Your task to perform on an android device: turn on improve location accuracy Image 0: 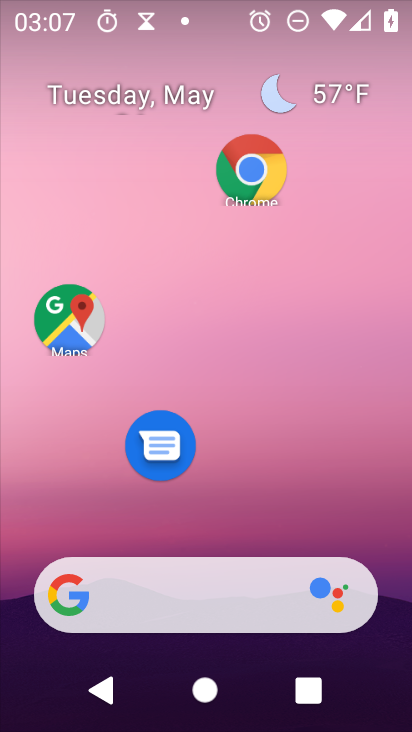
Step 0: drag from (224, 714) to (229, 49)
Your task to perform on an android device: turn on improve location accuracy Image 1: 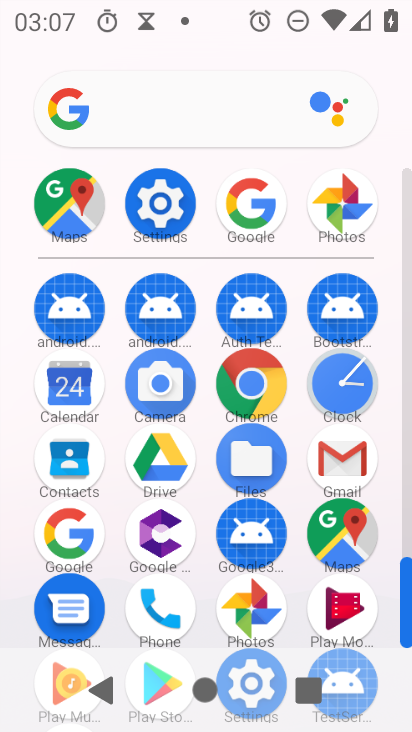
Step 1: click (155, 203)
Your task to perform on an android device: turn on improve location accuracy Image 2: 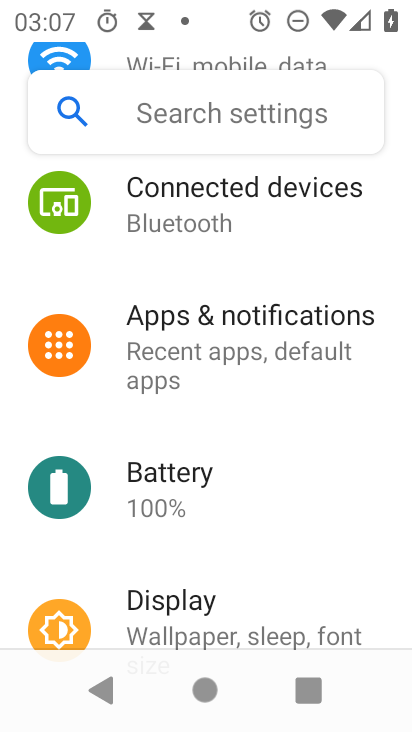
Step 2: drag from (162, 579) to (193, 150)
Your task to perform on an android device: turn on improve location accuracy Image 3: 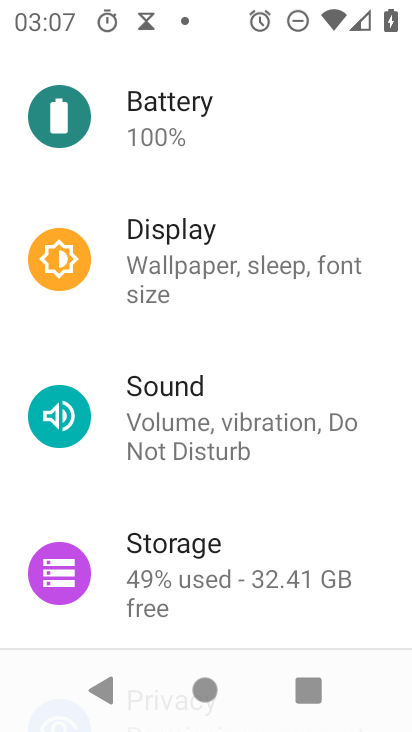
Step 3: drag from (217, 586) to (207, 216)
Your task to perform on an android device: turn on improve location accuracy Image 4: 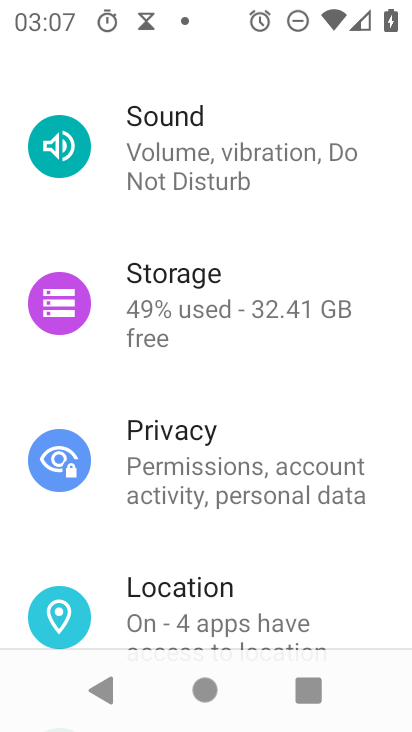
Step 4: click (179, 583)
Your task to perform on an android device: turn on improve location accuracy Image 5: 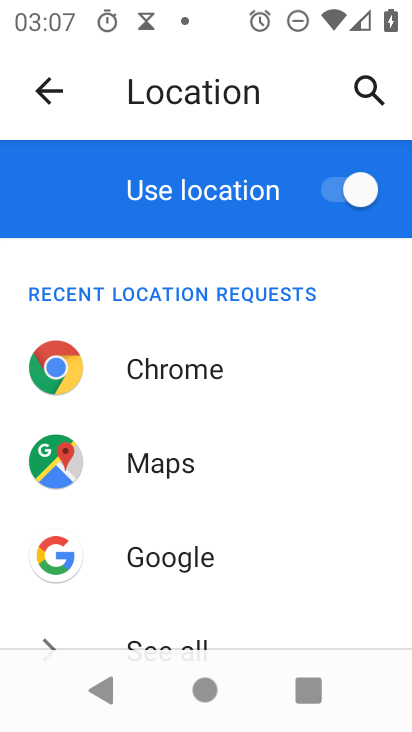
Step 5: drag from (180, 608) to (201, 177)
Your task to perform on an android device: turn on improve location accuracy Image 6: 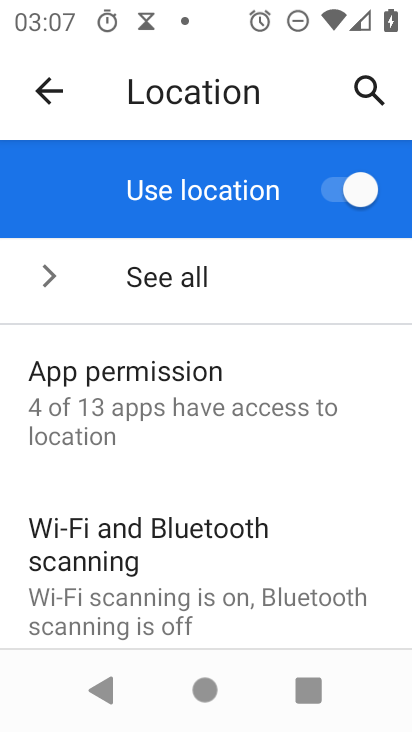
Step 6: drag from (157, 579) to (166, 235)
Your task to perform on an android device: turn on improve location accuracy Image 7: 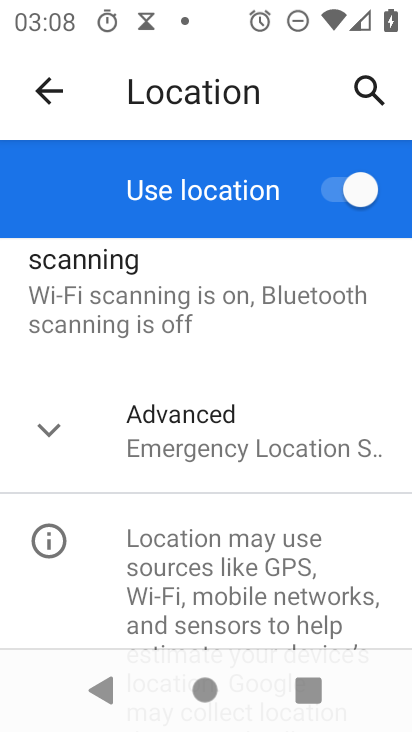
Step 7: drag from (181, 585) to (183, 332)
Your task to perform on an android device: turn on improve location accuracy Image 8: 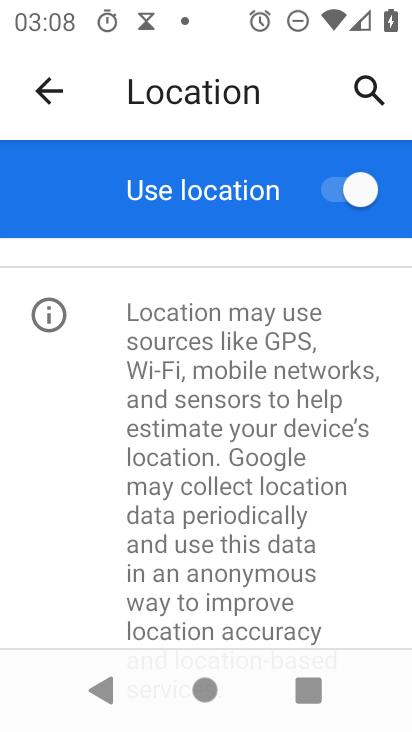
Step 8: drag from (199, 274) to (213, 474)
Your task to perform on an android device: turn on improve location accuracy Image 9: 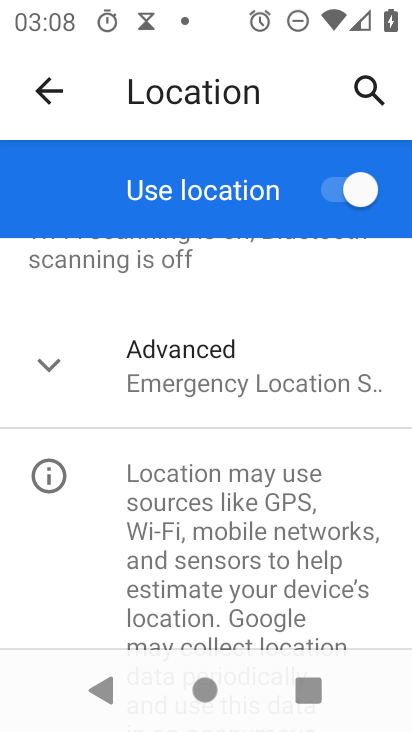
Step 9: click (190, 378)
Your task to perform on an android device: turn on improve location accuracy Image 10: 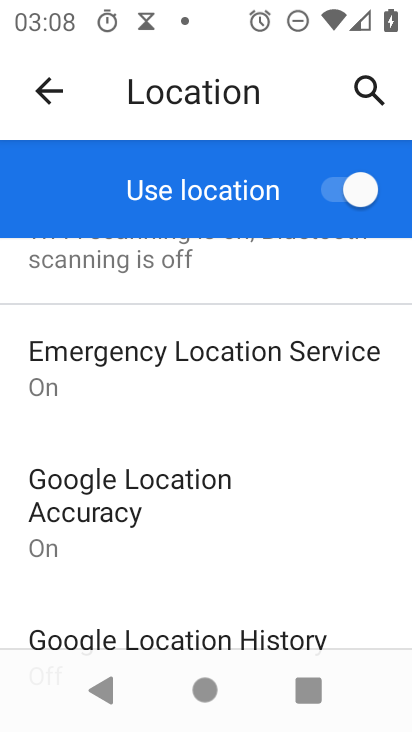
Step 10: click (77, 489)
Your task to perform on an android device: turn on improve location accuracy Image 11: 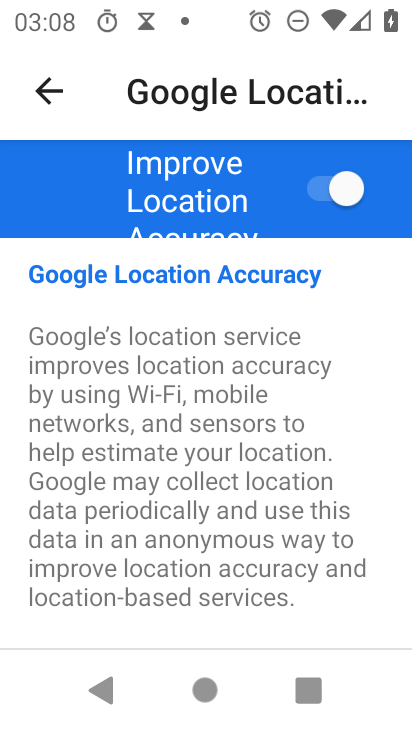
Step 11: task complete